Your task to perform on an android device: Search for seafood restaurants on Google Maps Image 0: 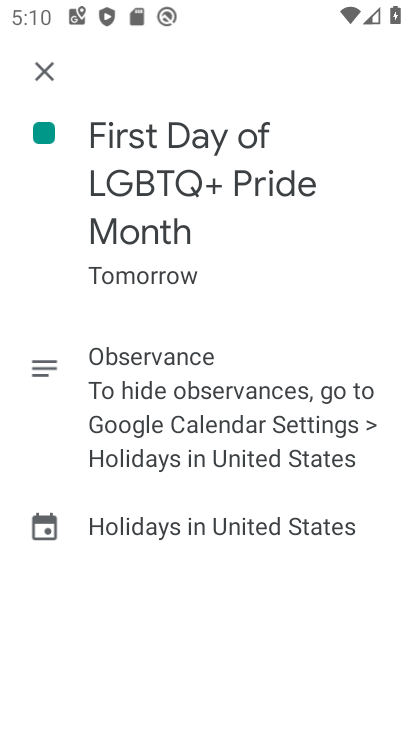
Step 0: press back button
Your task to perform on an android device: Search for seafood restaurants on Google Maps Image 1: 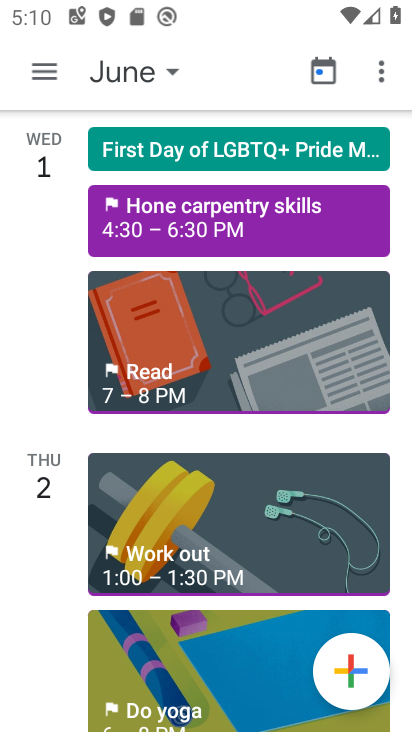
Step 1: press back button
Your task to perform on an android device: Search for seafood restaurants on Google Maps Image 2: 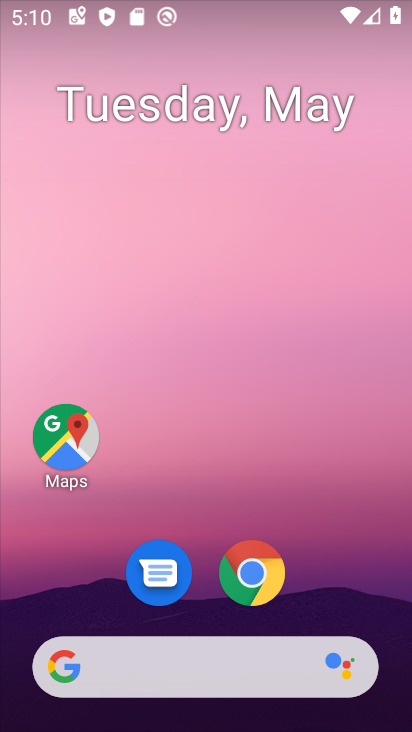
Step 2: click (62, 436)
Your task to perform on an android device: Search for seafood restaurants on Google Maps Image 3: 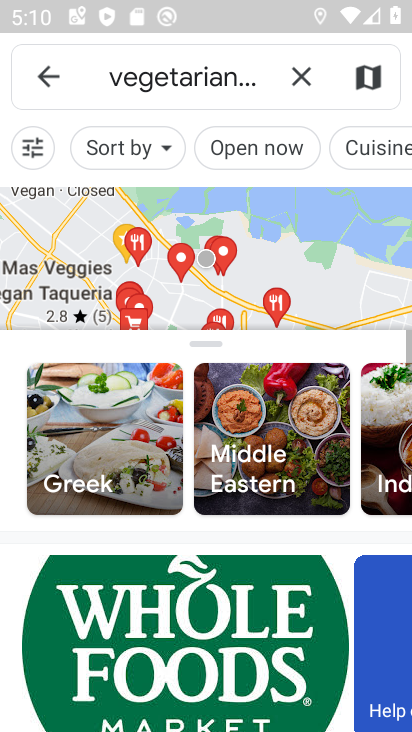
Step 3: click (289, 69)
Your task to perform on an android device: Search for seafood restaurants on Google Maps Image 4: 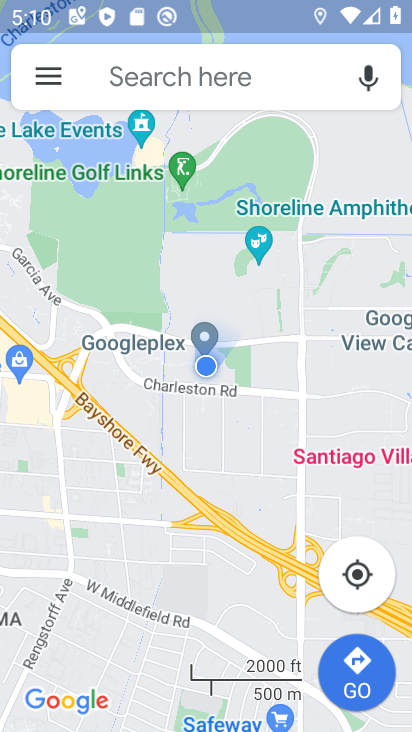
Step 4: click (165, 80)
Your task to perform on an android device: Search for seafood restaurants on Google Maps Image 5: 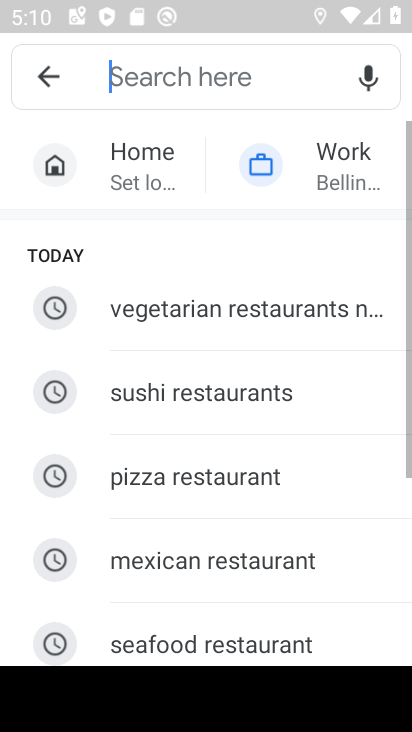
Step 5: click (166, 641)
Your task to perform on an android device: Search for seafood restaurants on Google Maps Image 6: 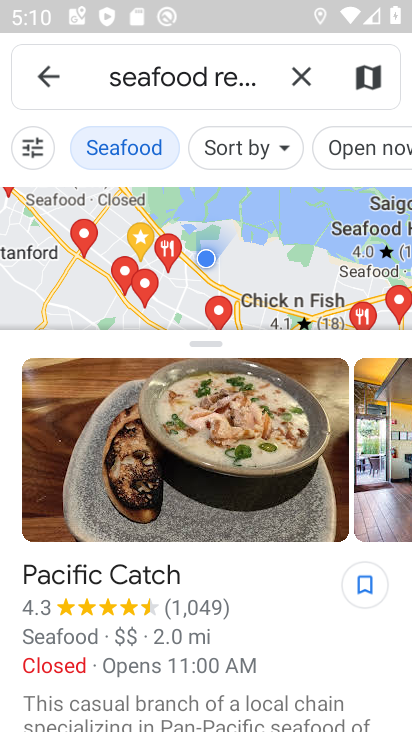
Step 6: task complete